Your task to perform on an android device: See recent photos Image 0: 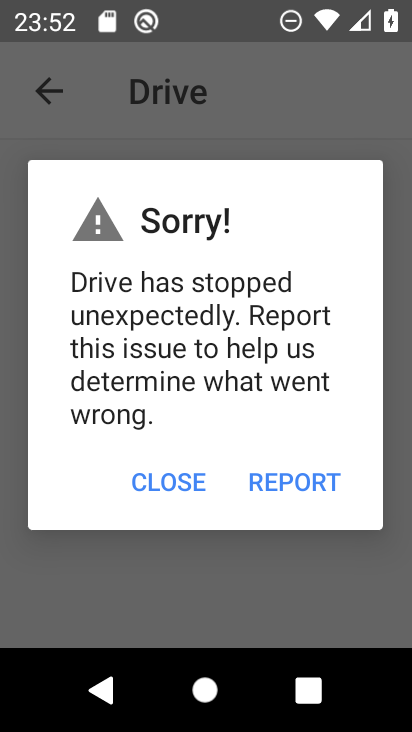
Step 0: press home button
Your task to perform on an android device: See recent photos Image 1: 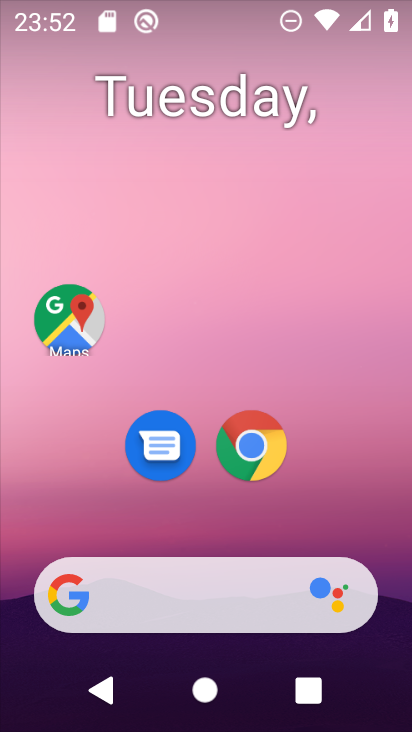
Step 1: drag from (293, 534) to (351, 21)
Your task to perform on an android device: See recent photos Image 2: 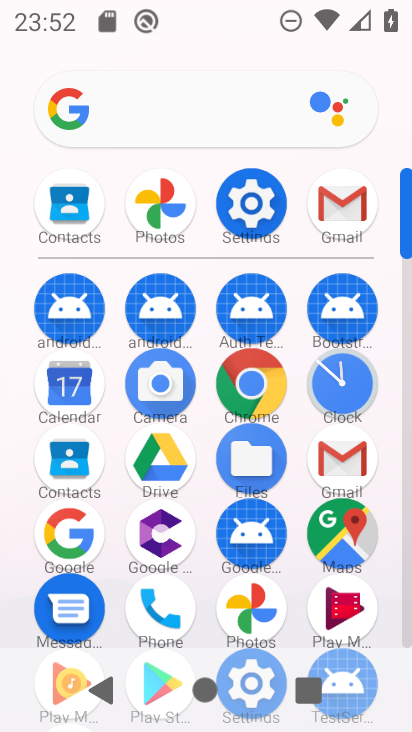
Step 2: click (159, 192)
Your task to perform on an android device: See recent photos Image 3: 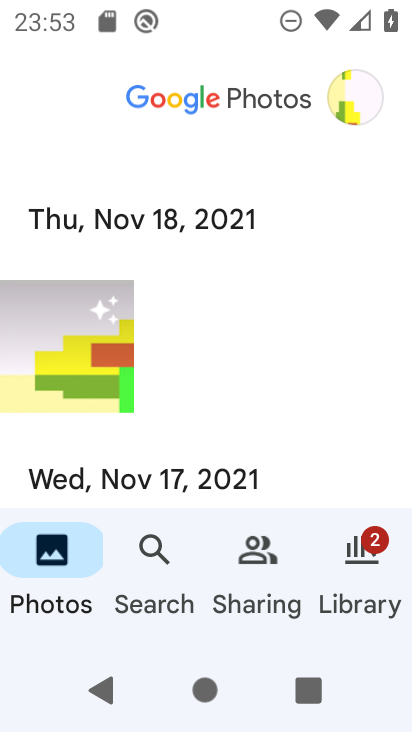
Step 3: task complete